Your task to perform on an android device: check android version Image 0: 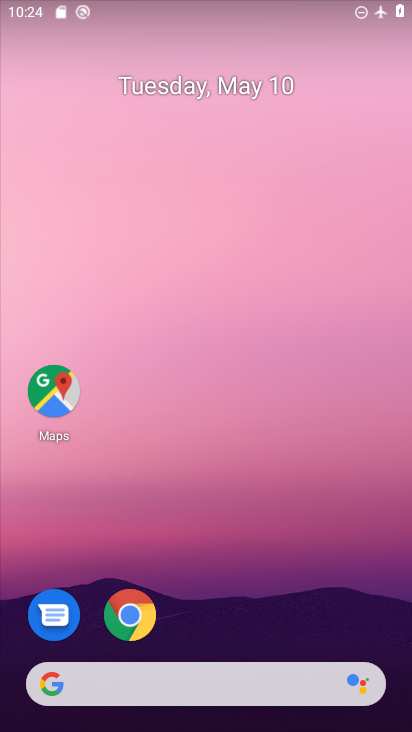
Step 0: drag from (215, 629) to (272, 115)
Your task to perform on an android device: check android version Image 1: 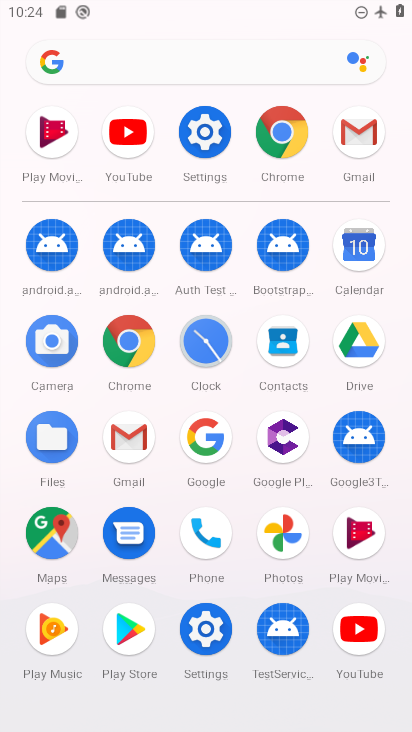
Step 1: click (208, 141)
Your task to perform on an android device: check android version Image 2: 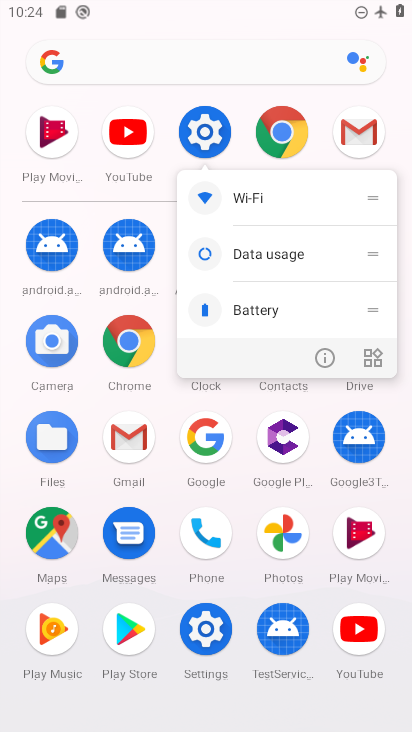
Step 2: click (318, 360)
Your task to perform on an android device: check android version Image 3: 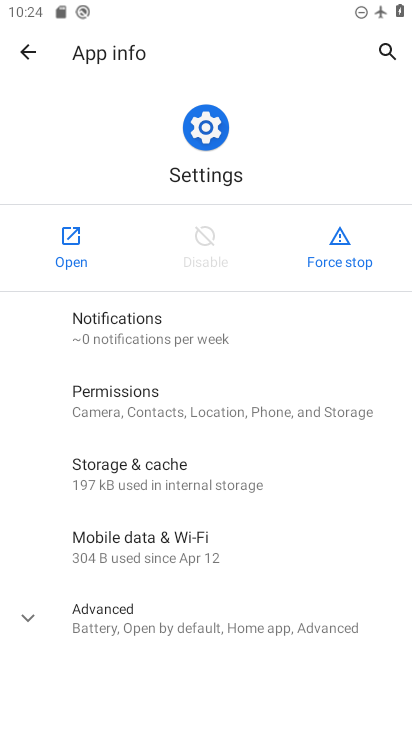
Step 3: click (71, 240)
Your task to perform on an android device: check android version Image 4: 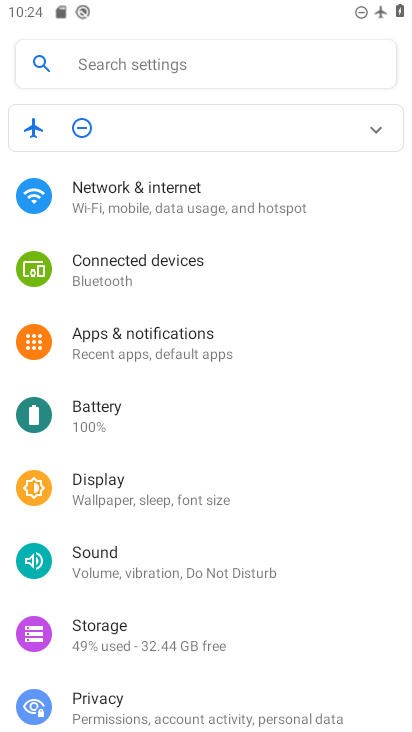
Step 4: drag from (223, 639) to (370, 164)
Your task to perform on an android device: check android version Image 5: 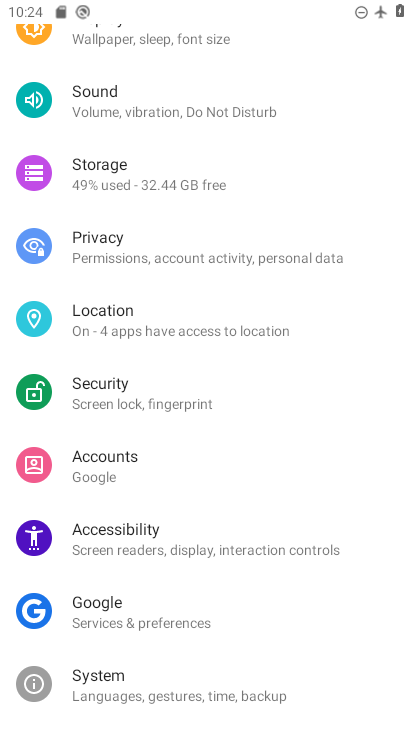
Step 5: drag from (196, 630) to (322, 178)
Your task to perform on an android device: check android version Image 6: 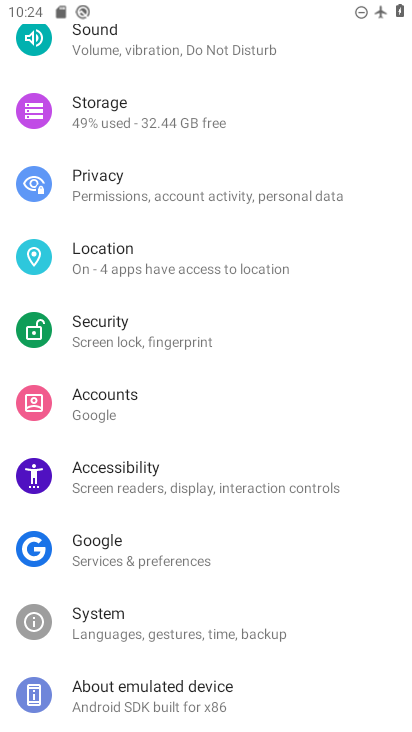
Step 6: drag from (141, 680) to (140, 338)
Your task to perform on an android device: check android version Image 7: 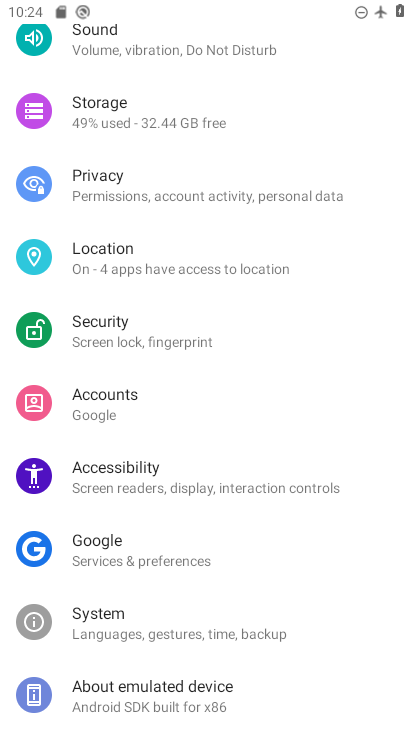
Step 7: click (172, 717)
Your task to perform on an android device: check android version Image 8: 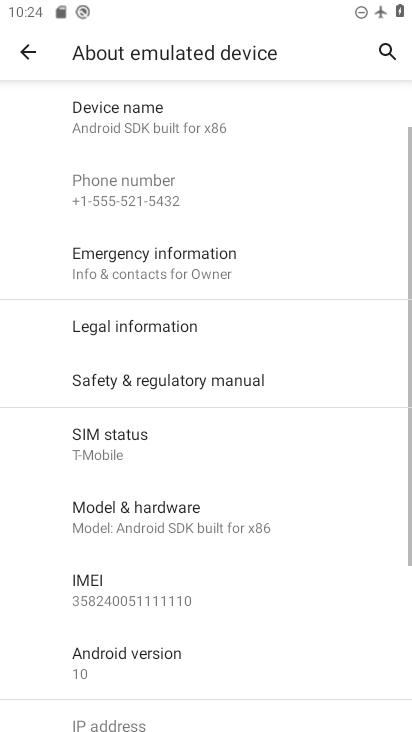
Step 8: click (153, 663)
Your task to perform on an android device: check android version Image 9: 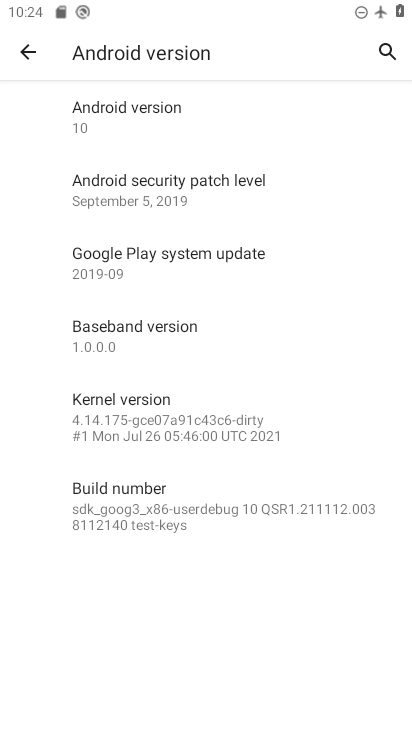
Step 9: task complete